Your task to perform on an android device: turn off translation in the chrome app Image 0: 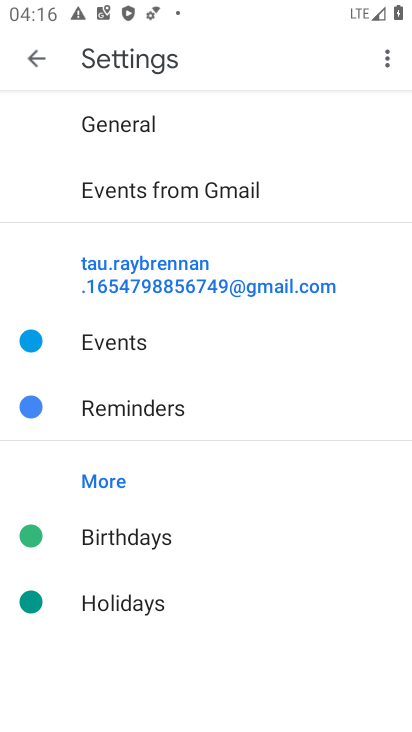
Step 0: drag from (292, 619) to (281, 344)
Your task to perform on an android device: turn off translation in the chrome app Image 1: 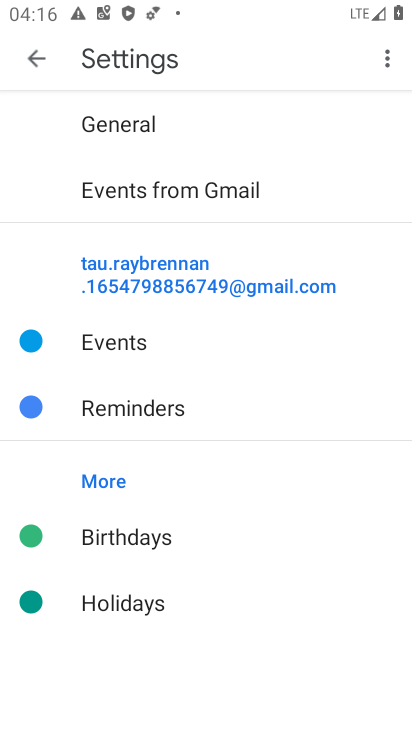
Step 1: press home button
Your task to perform on an android device: turn off translation in the chrome app Image 2: 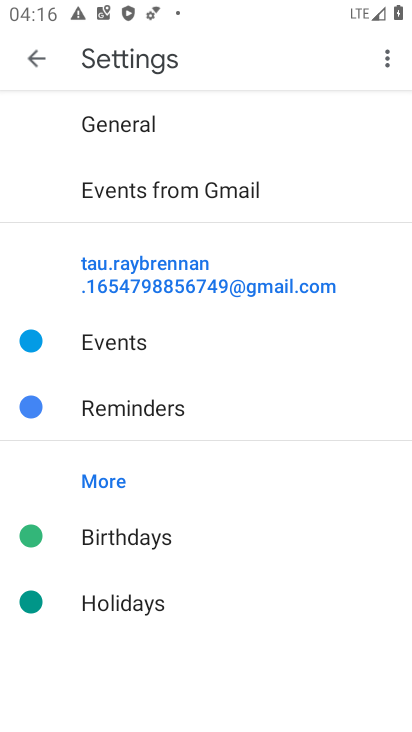
Step 2: press home button
Your task to perform on an android device: turn off translation in the chrome app Image 3: 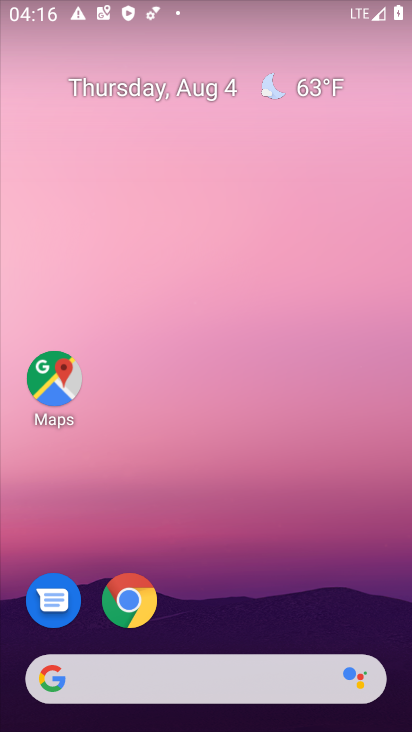
Step 3: drag from (233, 481) to (185, 71)
Your task to perform on an android device: turn off translation in the chrome app Image 4: 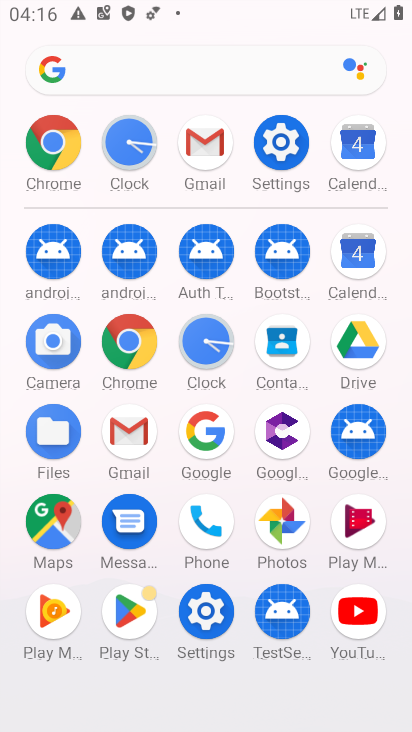
Step 4: click (133, 342)
Your task to perform on an android device: turn off translation in the chrome app Image 5: 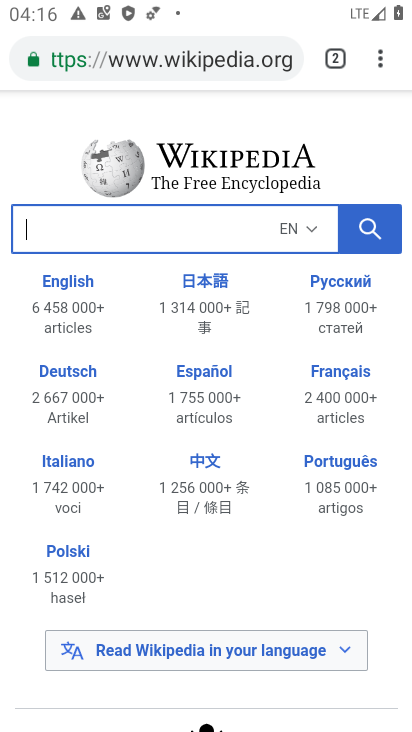
Step 5: drag from (382, 49) to (220, 630)
Your task to perform on an android device: turn off translation in the chrome app Image 6: 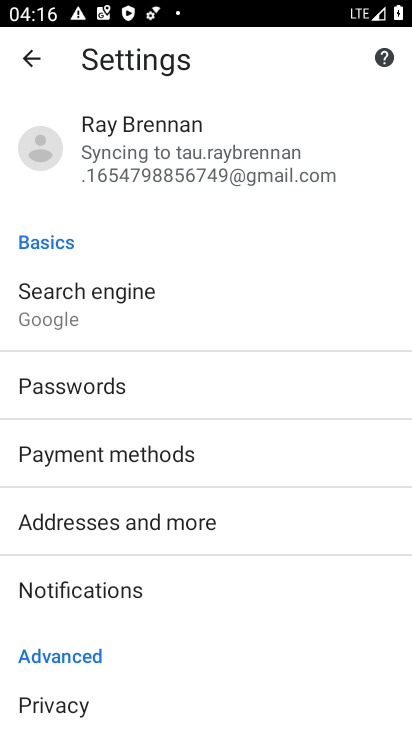
Step 6: drag from (235, 615) to (260, 275)
Your task to perform on an android device: turn off translation in the chrome app Image 7: 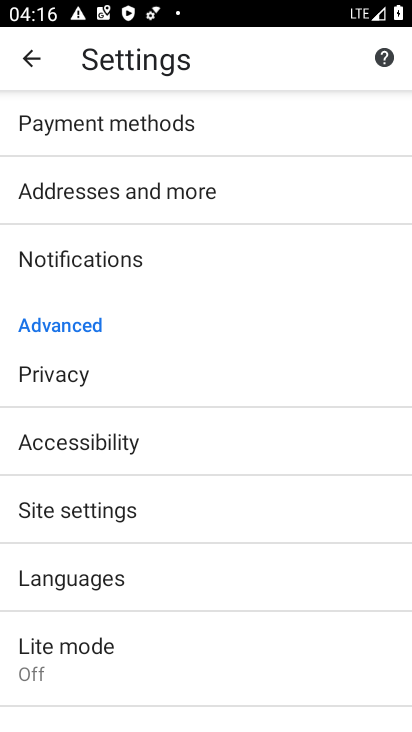
Step 7: drag from (160, 567) to (205, 295)
Your task to perform on an android device: turn off translation in the chrome app Image 8: 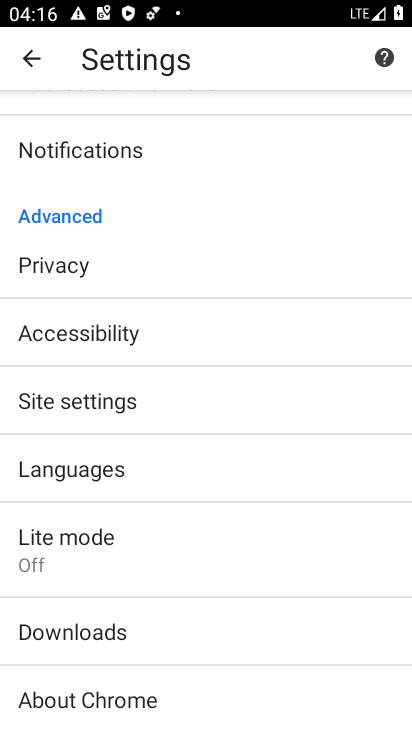
Step 8: click (97, 465)
Your task to perform on an android device: turn off translation in the chrome app Image 9: 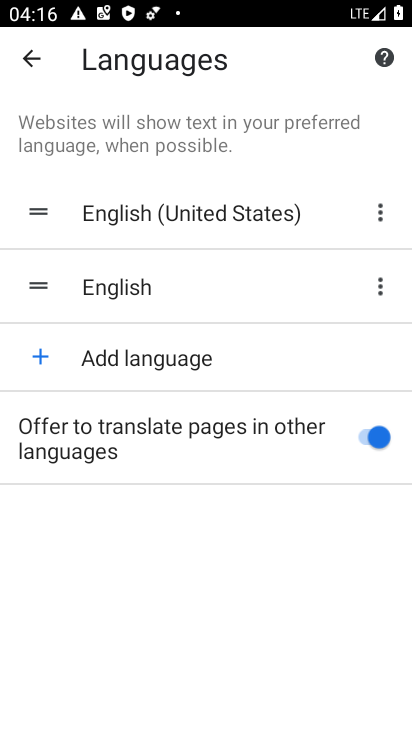
Step 9: click (359, 423)
Your task to perform on an android device: turn off translation in the chrome app Image 10: 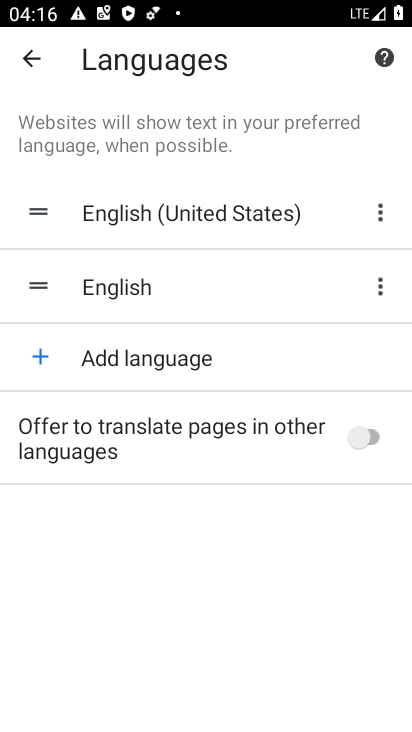
Step 10: task complete